Your task to perform on an android device: toggle sleep mode Image 0: 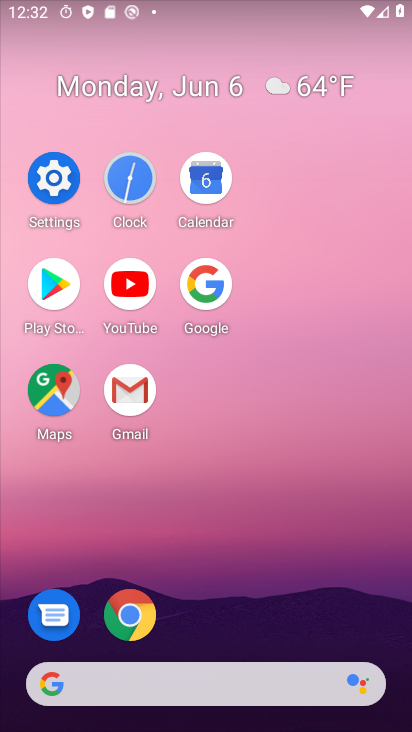
Step 0: click (53, 197)
Your task to perform on an android device: toggle sleep mode Image 1: 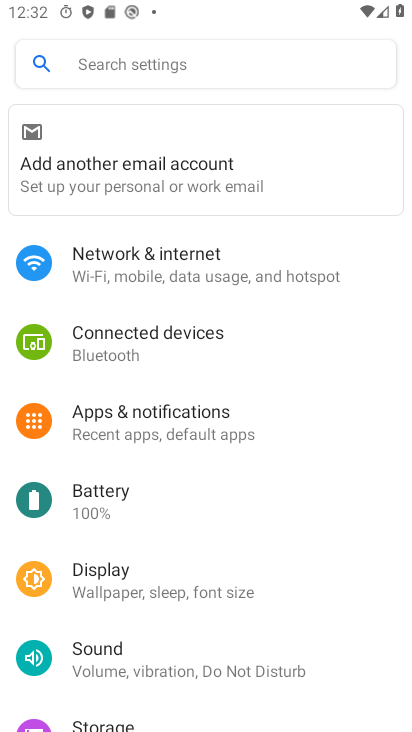
Step 1: drag from (215, 669) to (240, 297)
Your task to perform on an android device: toggle sleep mode Image 2: 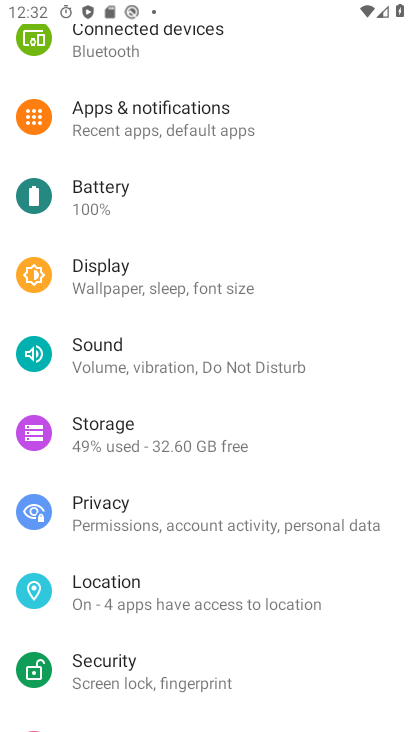
Step 2: click (174, 288)
Your task to perform on an android device: toggle sleep mode Image 3: 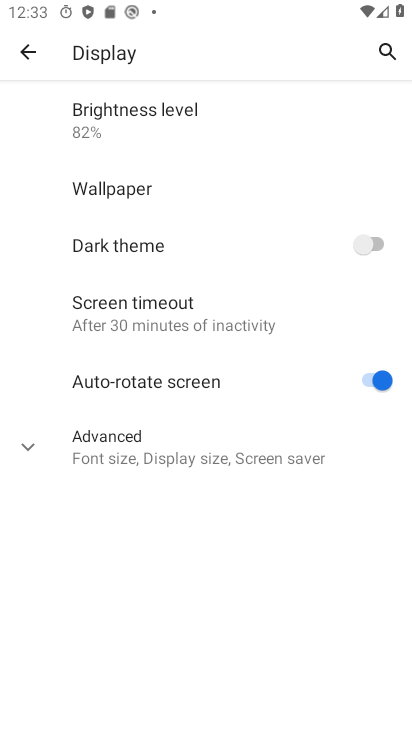
Step 3: click (177, 334)
Your task to perform on an android device: toggle sleep mode Image 4: 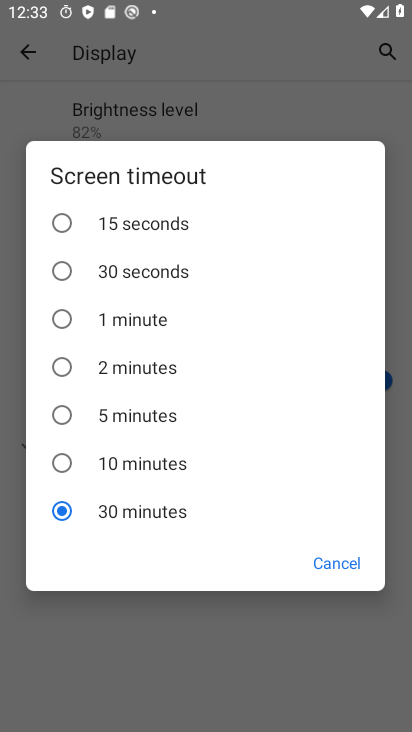
Step 4: click (104, 277)
Your task to perform on an android device: toggle sleep mode Image 5: 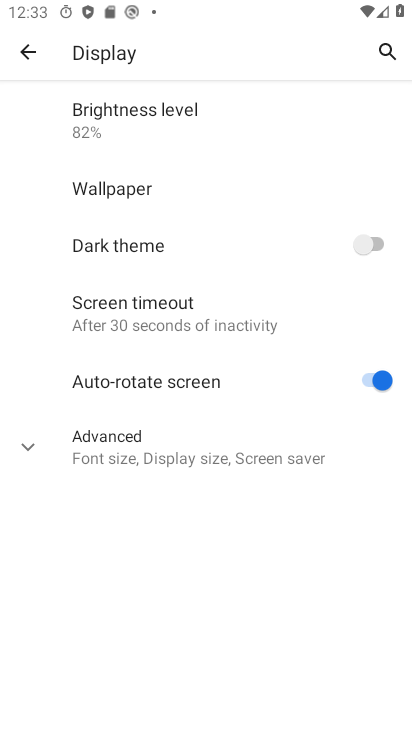
Step 5: task complete